Your task to perform on an android device: What's on my calendar today? Image 0: 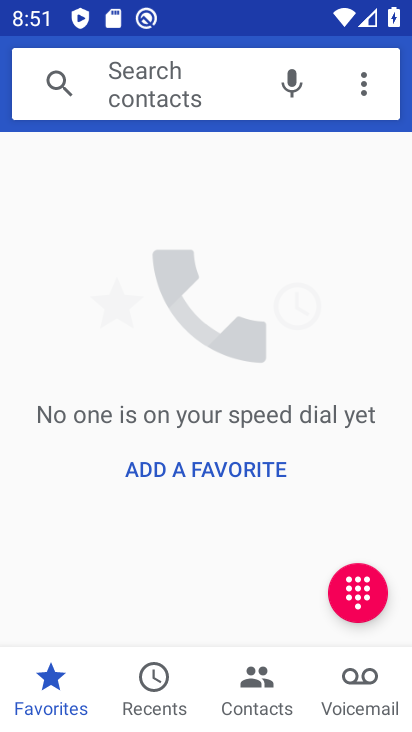
Step 0: press back button
Your task to perform on an android device: What's on my calendar today? Image 1: 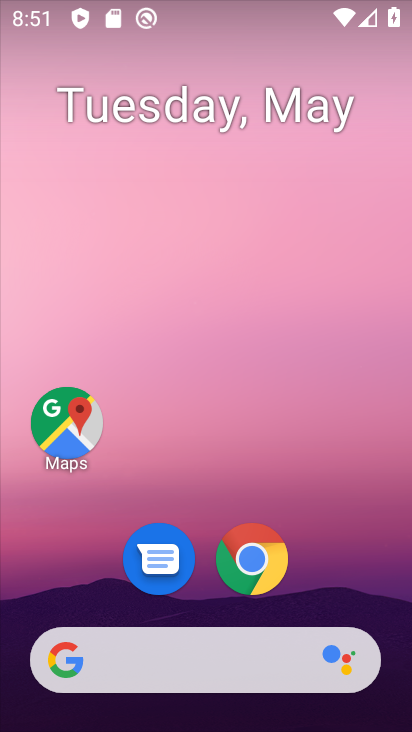
Step 1: drag from (365, 590) to (139, 4)
Your task to perform on an android device: What's on my calendar today? Image 2: 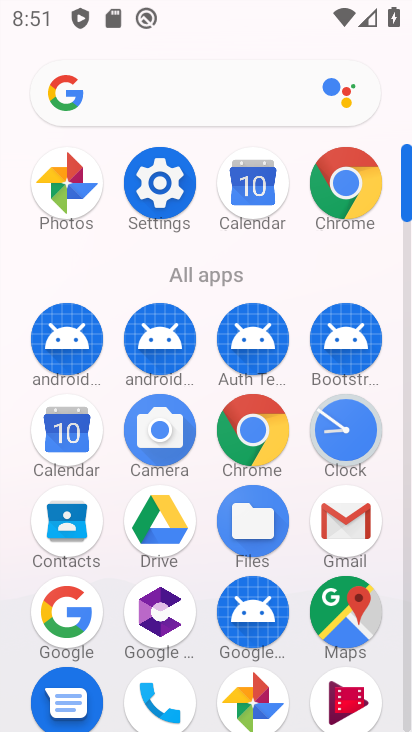
Step 2: click (61, 426)
Your task to perform on an android device: What's on my calendar today? Image 3: 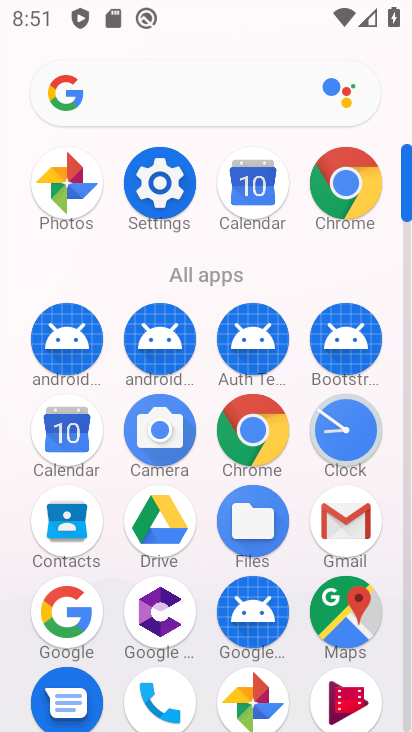
Step 3: click (61, 426)
Your task to perform on an android device: What's on my calendar today? Image 4: 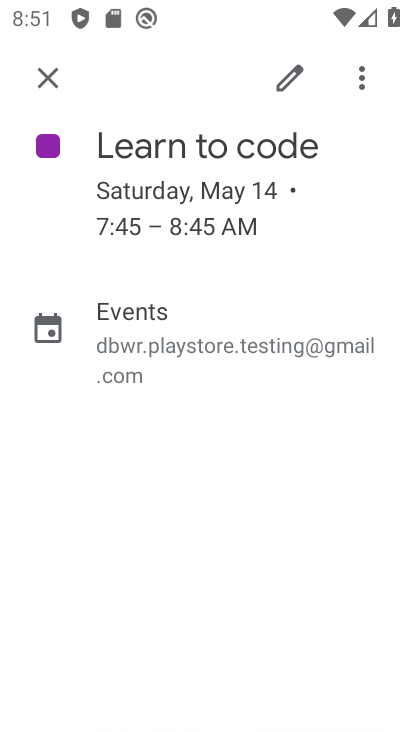
Step 4: click (52, 76)
Your task to perform on an android device: What's on my calendar today? Image 5: 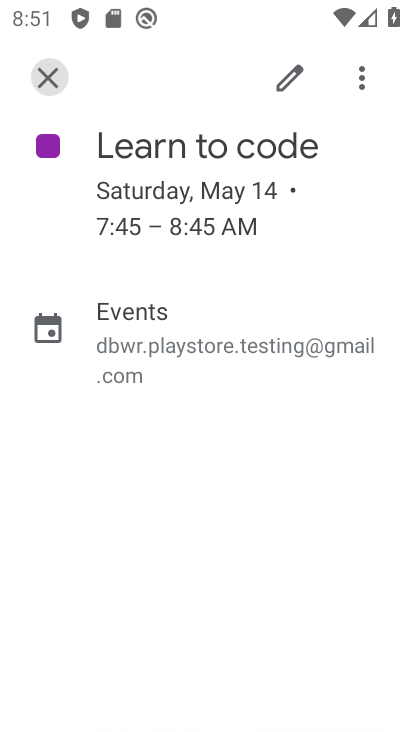
Step 5: click (50, 76)
Your task to perform on an android device: What's on my calendar today? Image 6: 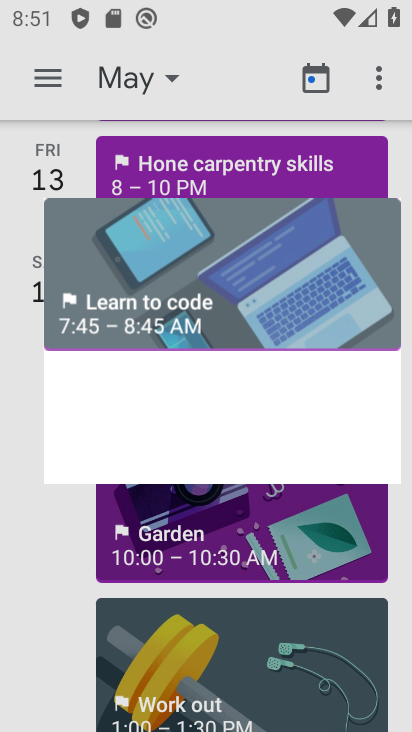
Step 6: click (49, 78)
Your task to perform on an android device: What's on my calendar today? Image 7: 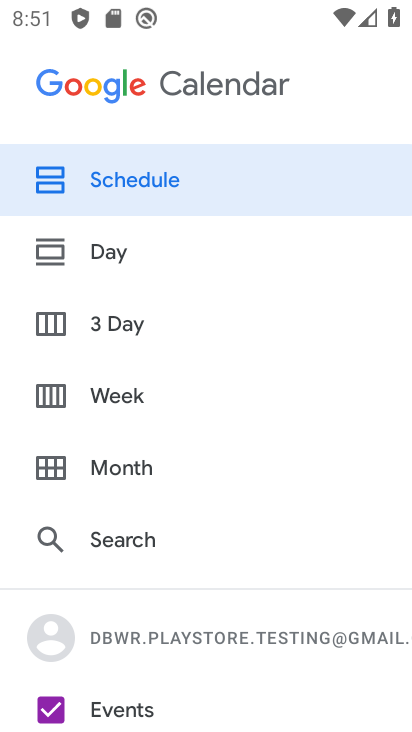
Step 7: press back button
Your task to perform on an android device: What's on my calendar today? Image 8: 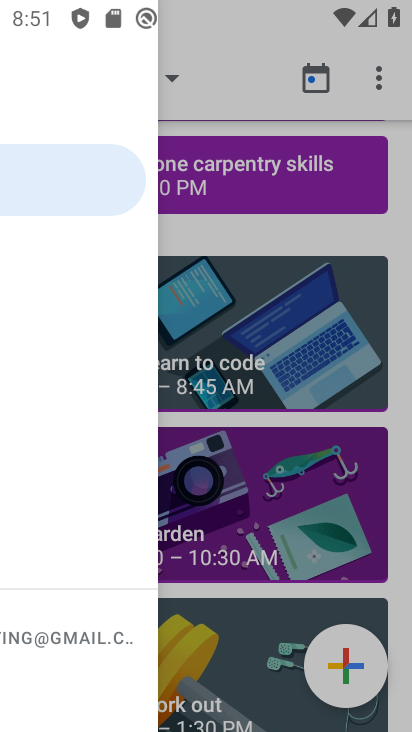
Step 8: press back button
Your task to perform on an android device: What's on my calendar today? Image 9: 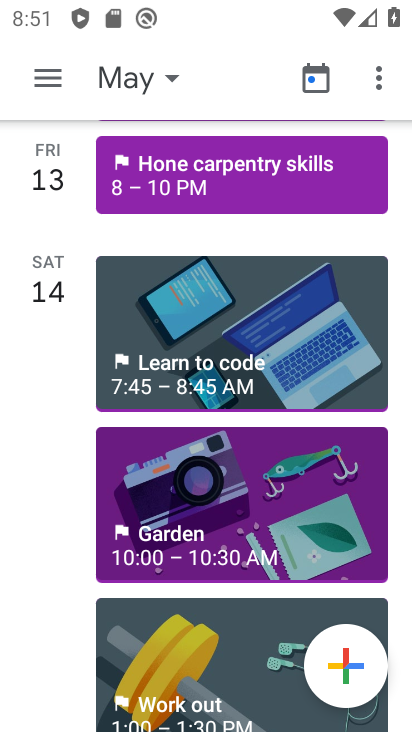
Step 9: press back button
Your task to perform on an android device: What's on my calendar today? Image 10: 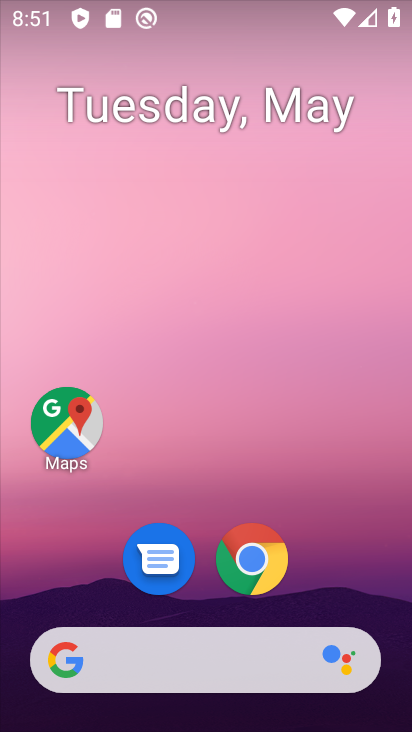
Step 10: drag from (376, 613) to (135, 43)
Your task to perform on an android device: What's on my calendar today? Image 11: 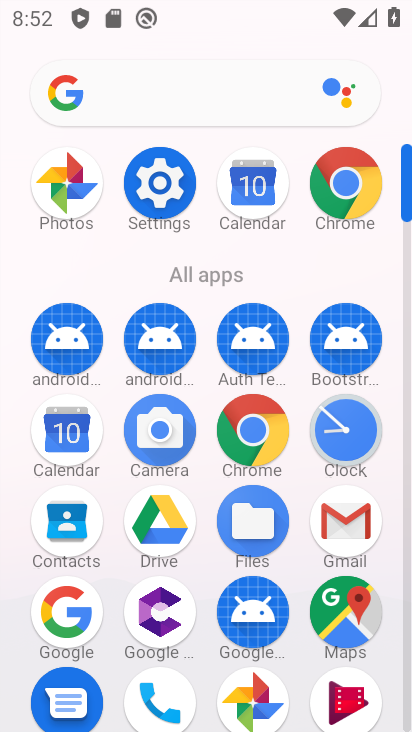
Step 11: click (57, 433)
Your task to perform on an android device: What's on my calendar today? Image 12: 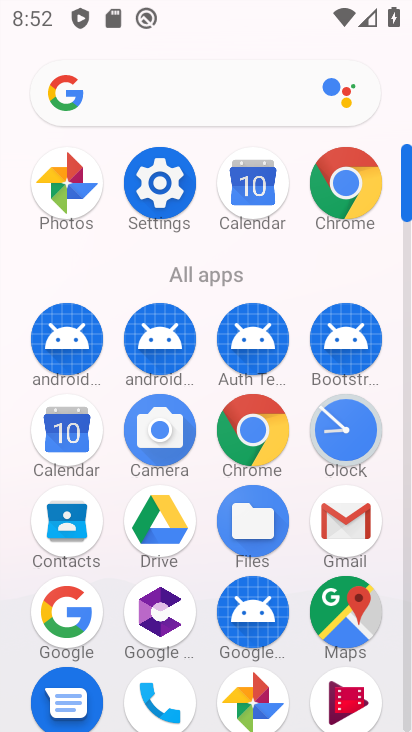
Step 12: click (58, 434)
Your task to perform on an android device: What's on my calendar today? Image 13: 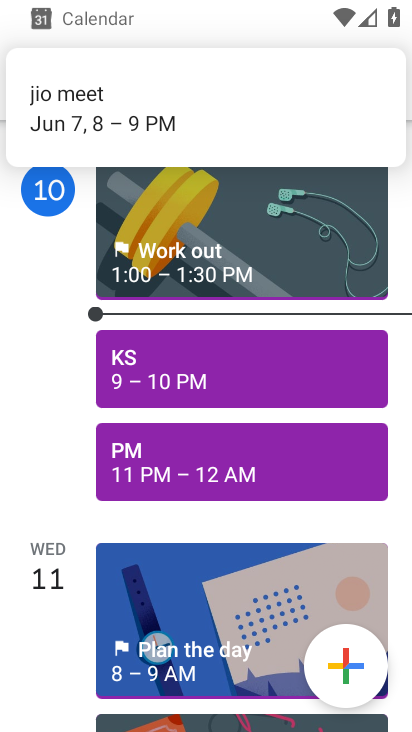
Step 13: click (67, 282)
Your task to perform on an android device: What's on my calendar today? Image 14: 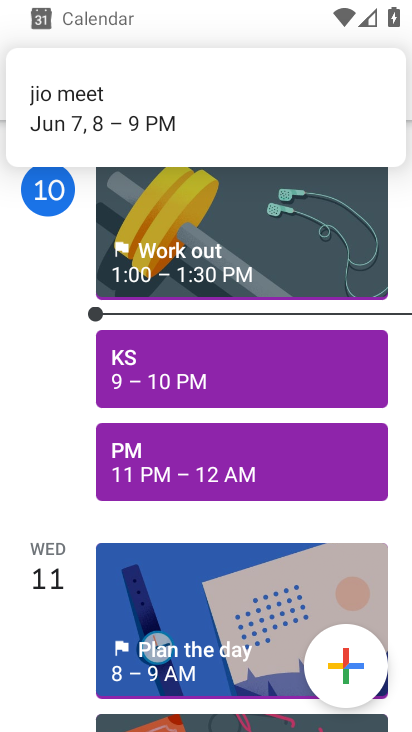
Step 14: click (43, 287)
Your task to perform on an android device: What's on my calendar today? Image 15: 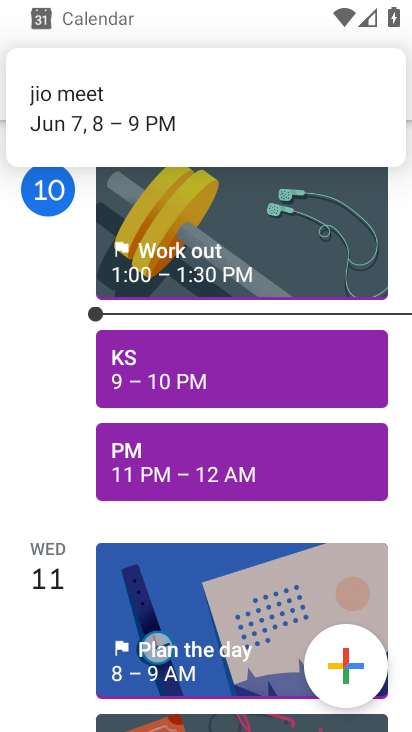
Step 15: click (42, 287)
Your task to perform on an android device: What's on my calendar today? Image 16: 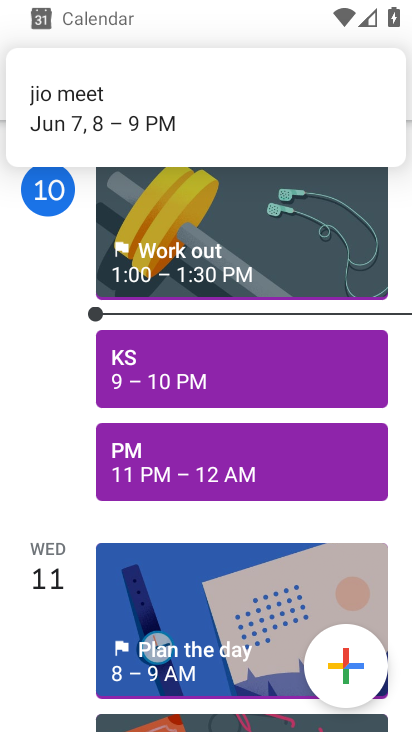
Step 16: drag from (39, 245) to (36, 306)
Your task to perform on an android device: What's on my calendar today? Image 17: 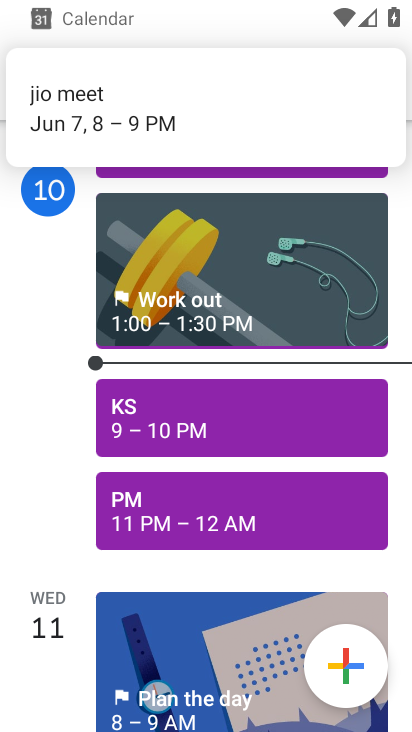
Step 17: click (33, 303)
Your task to perform on an android device: What's on my calendar today? Image 18: 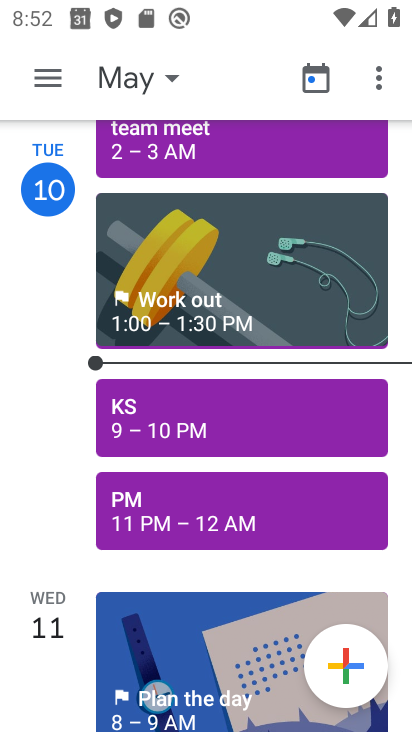
Step 18: drag from (182, 435) to (111, 45)
Your task to perform on an android device: What's on my calendar today? Image 19: 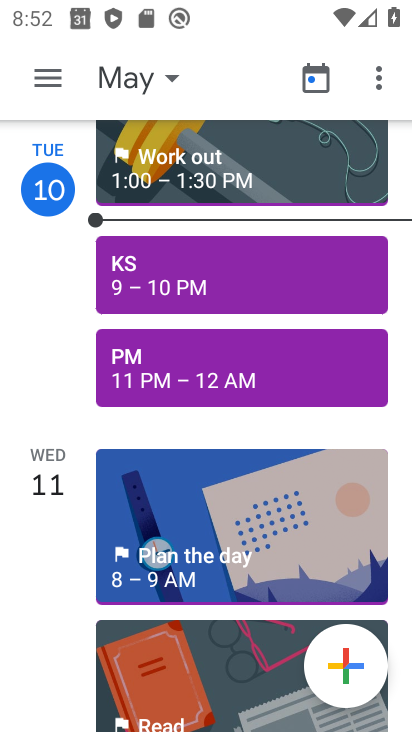
Step 19: drag from (174, 448) to (121, 111)
Your task to perform on an android device: What's on my calendar today? Image 20: 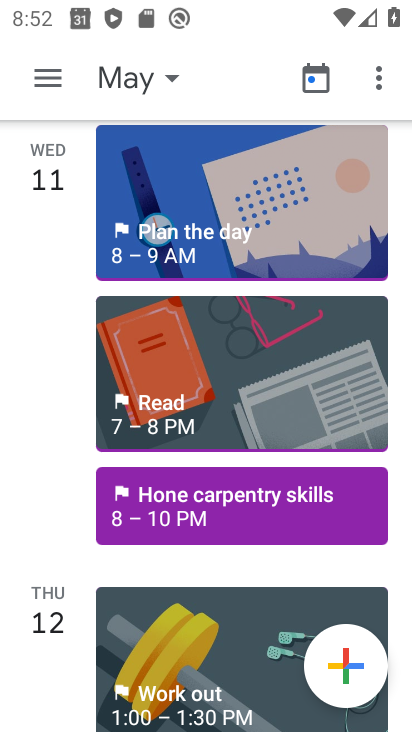
Step 20: drag from (144, 452) to (162, 133)
Your task to perform on an android device: What's on my calendar today? Image 21: 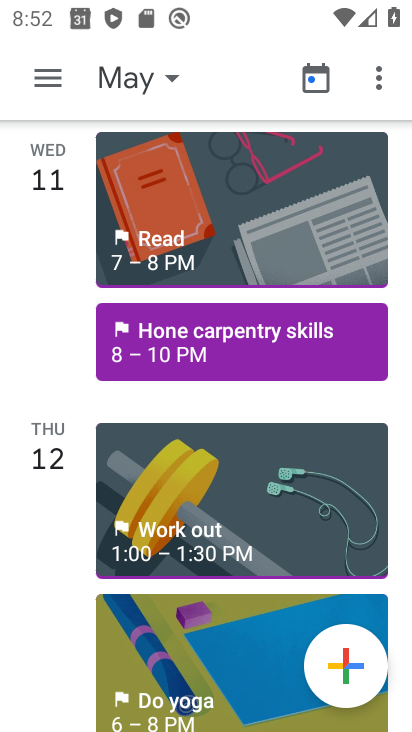
Step 21: drag from (165, 474) to (126, 221)
Your task to perform on an android device: What's on my calendar today? Image 22: 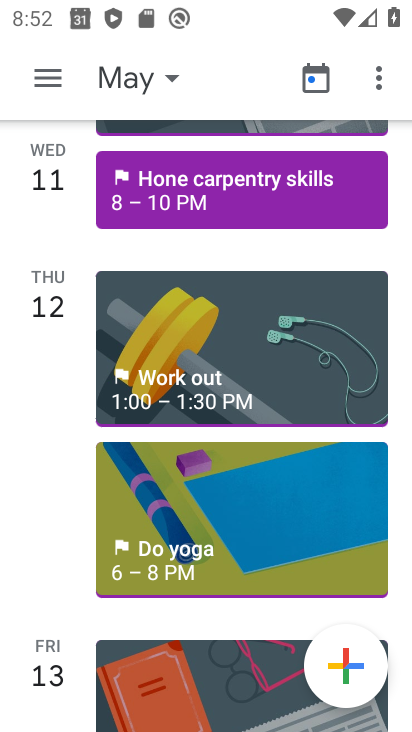
Step 22: drag from (145, 459) to (142, 114)
Your task to perform on an android device: What's on my calendar today? Image 23: 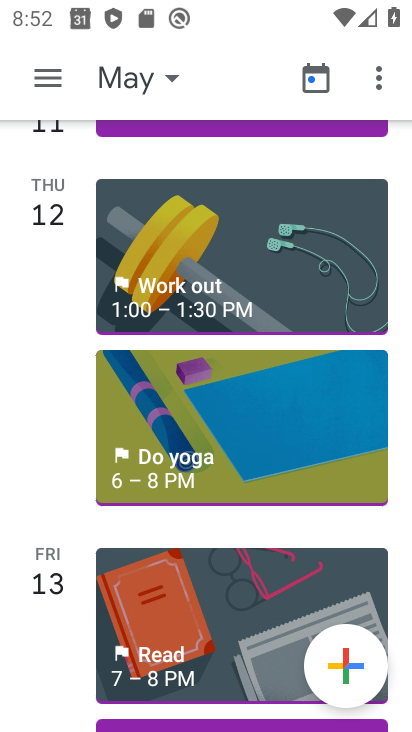
Step 23: drag from (182, 459) to (154, 229)
Your task to perform on an android device: What's on my calendar today? Image 24: 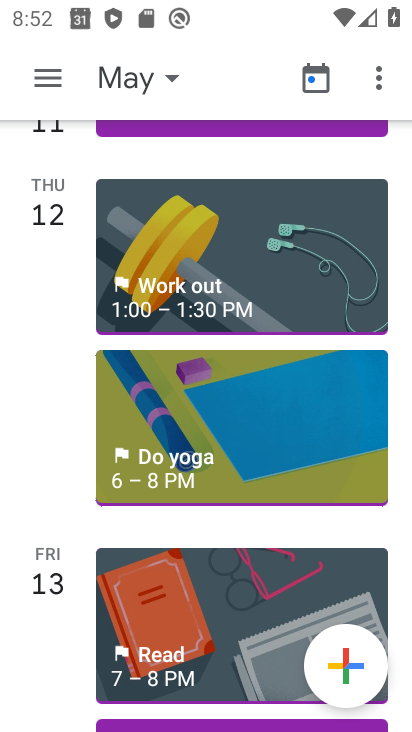
Step 24: drag from (172, 519) to (135, 203)
Your task to perform on an android device: What's on my calendar today? Image 25: 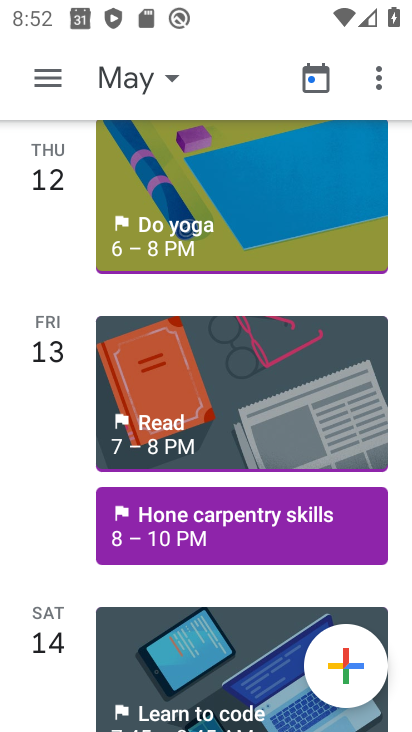
Step 25: drag from (126, 519) to (86, 147)
Your task to perform on an android device: What's on my calendar today? Image 26: 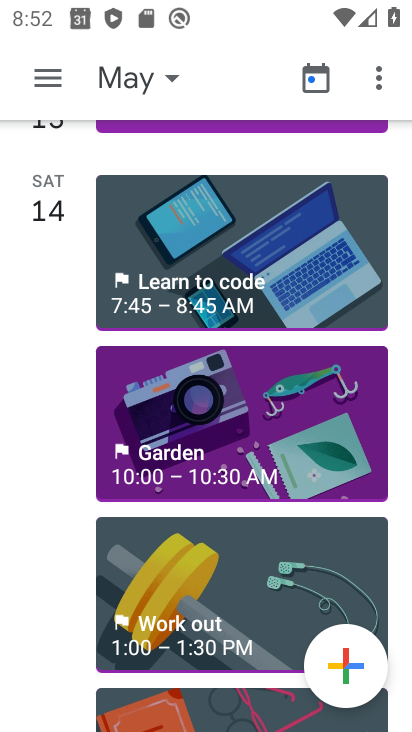
Step 26: click (186, 249)
Your task to perform on an android device: What's on my calendar today? Image 27: 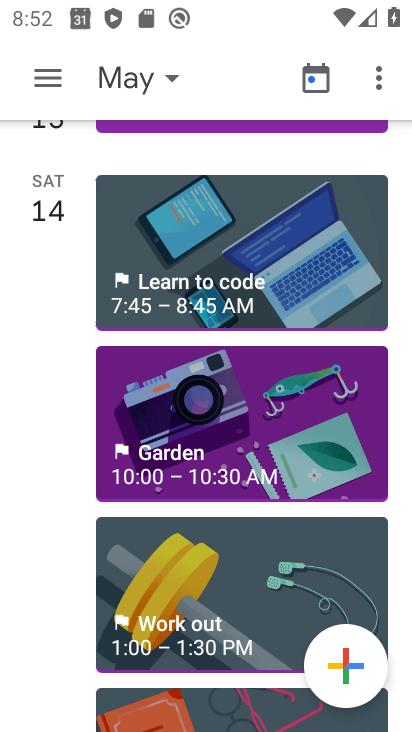
Step 27: click (185, 252)
Your task to perform on an android device: What's on my calendar today? Image 28: 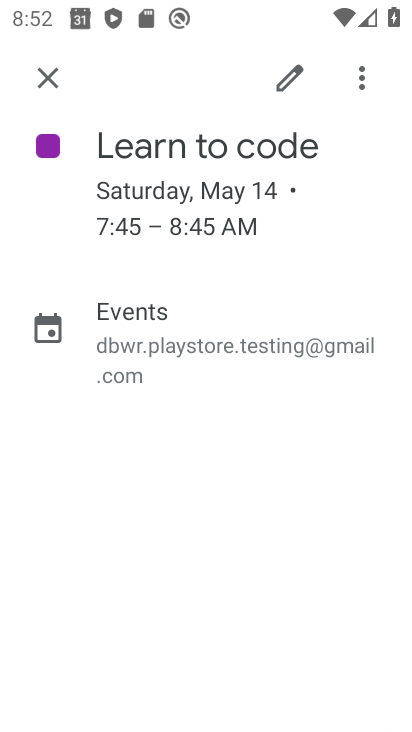
Step 28: task complete